Your task to perform on an android device: turn off smart reply in the gmail app Image 0: 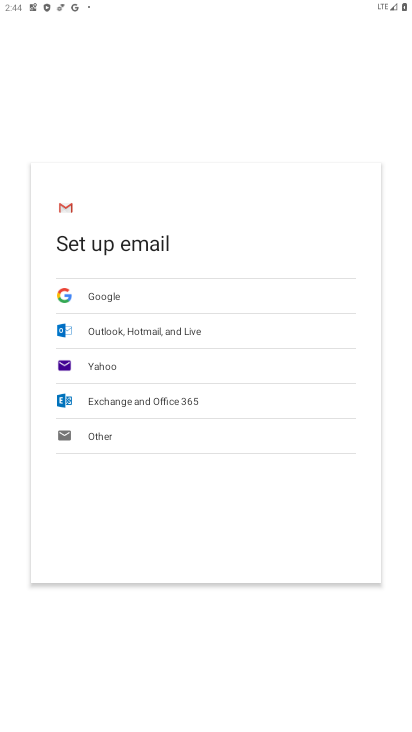
Step 0: press home button
Your task to perform on an android device: turn off smart reply in the gmail app Image 1: 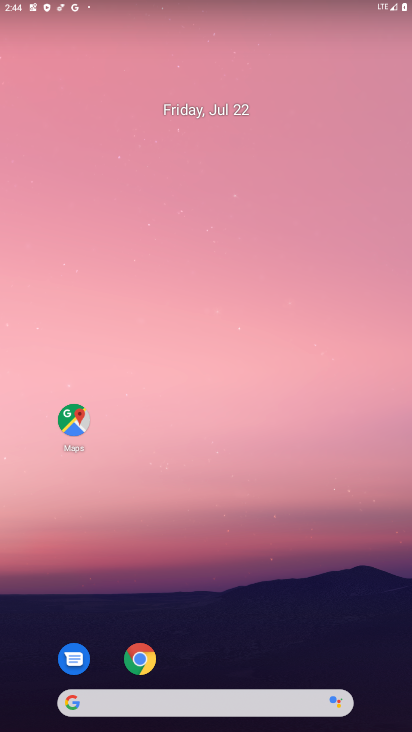
Step 1: drag from (188, 629) to (160, 38)
Your task to perform on an android device: turn off smart reply in the gmail app Image 2: 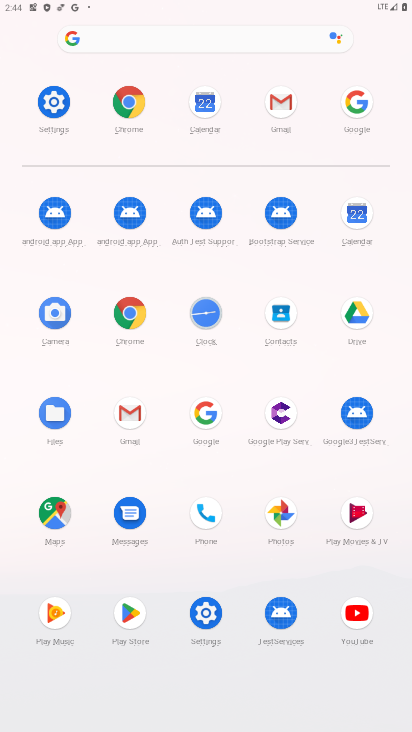
Step 2: click (278, 110)
Your task to perform on an android device: turn off smart reply in the gmail app Image 3: 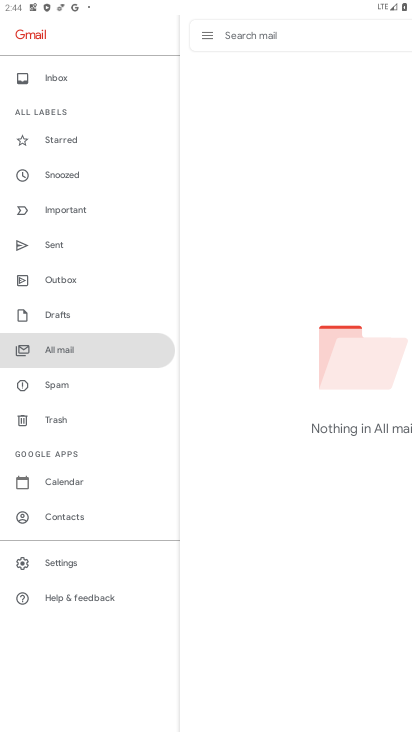
Step 3: click (69, 566)
Your task to perform on an android device: turn off smart reply in the gmail app Image 4: 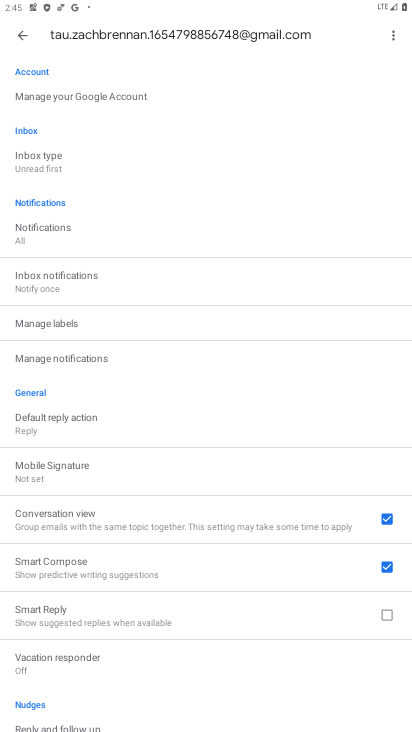
Step 4: task complete